Your task to perform on an android device: turn pop-ups on in chrome Image 0: 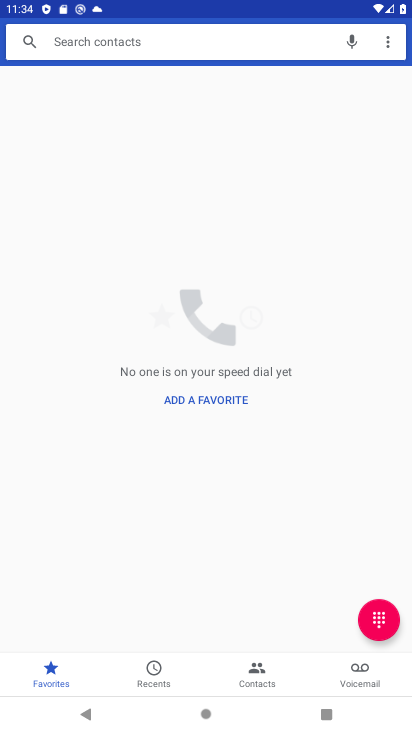
Step 0: press home button
Your task to perform on an android device: turn pop-ups on in chrome Image 1: 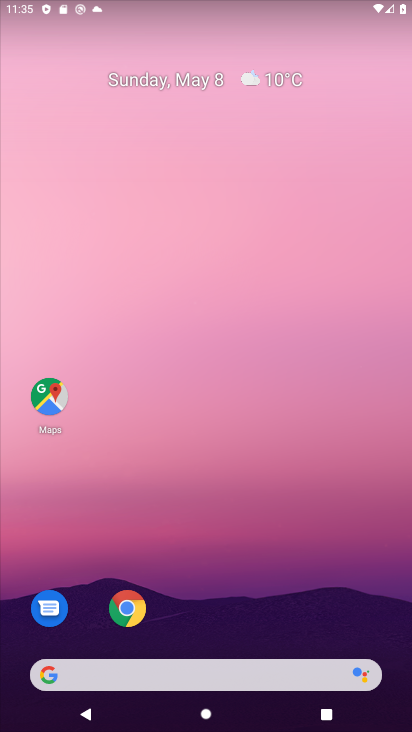
Step 1: click (144, 608)
Your task to perform on an android device: turn pop-ups on in chrome Image 2: 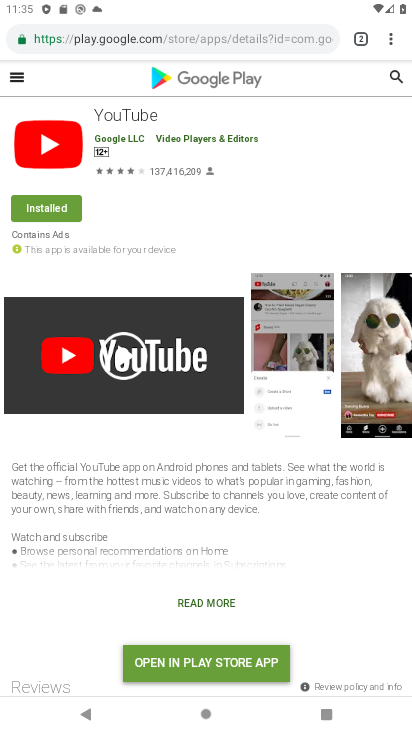
Step 2: click (393, 34)
Your task to perform on an android device: turn pop-ups on in chrome Image 3: 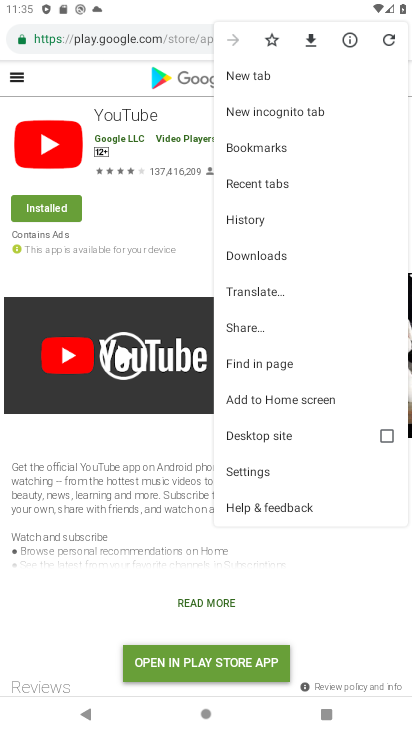
Step 3: click (259, 464)
Your task to perform on an android device: turn pop-ups on in chrome Image 4: 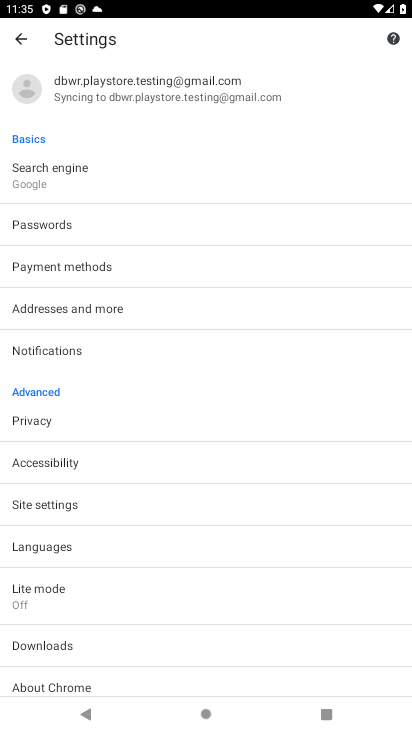
Step 4: click (104, 496)
Your task to perform on an android device: turn pop-ups on in chrome Image 5: 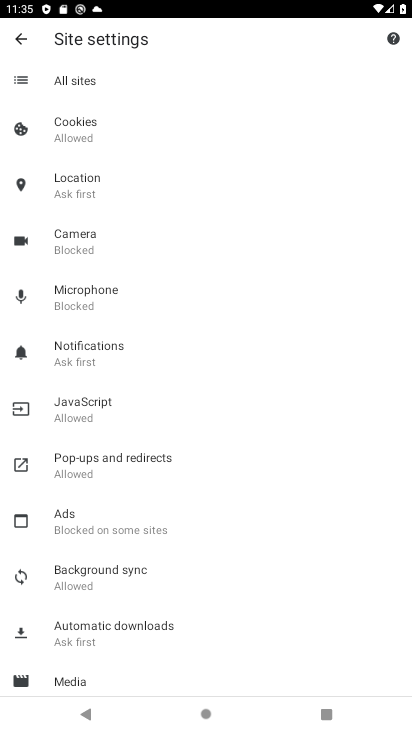
Step 5: click (138, 471)
Your task to perform on an android device: turn pop-ups on in chrome Image 6: 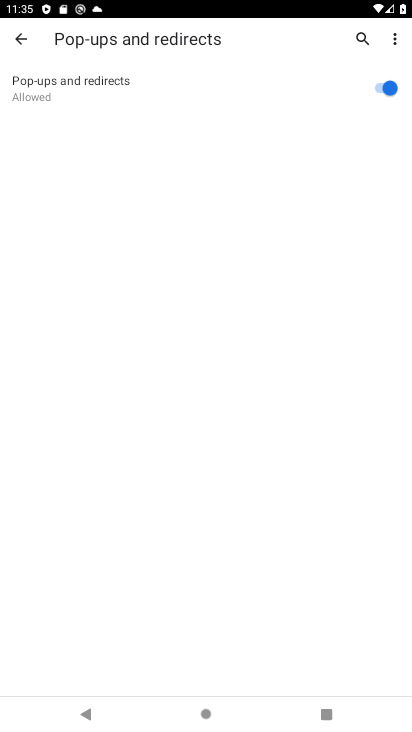
Step 6: click (372, 91)
Your task to perform on an android device: turn pop-ups on in chrome Image 7: 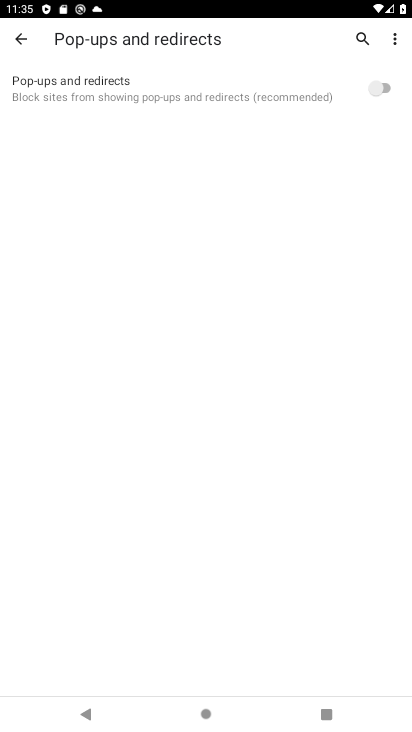
Step 7: task complete